Your task to perform on an android device: Open CNN.com Image 0: 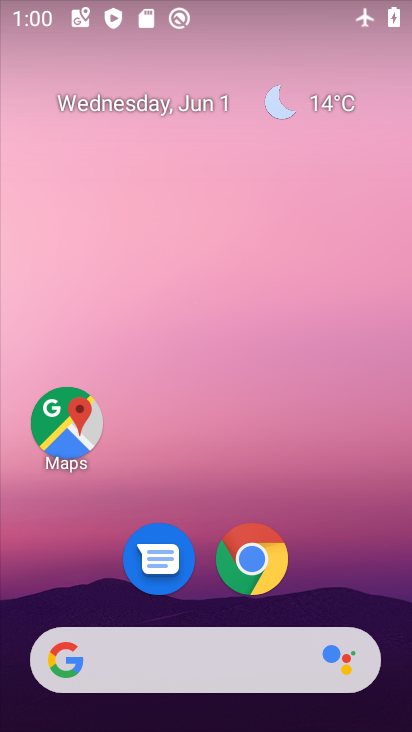
Step 0: click (55, 446)
Your task to perform on an android device: Open CNN.com Image 1: 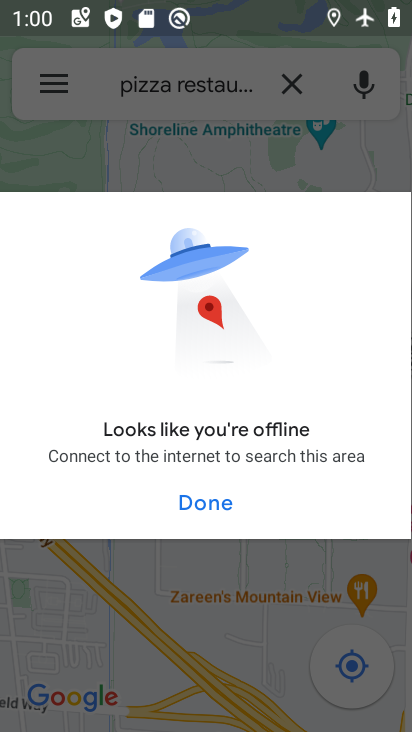
Step 1: press home button
Your task to perform on an android device: Open CNN.com Image 2: 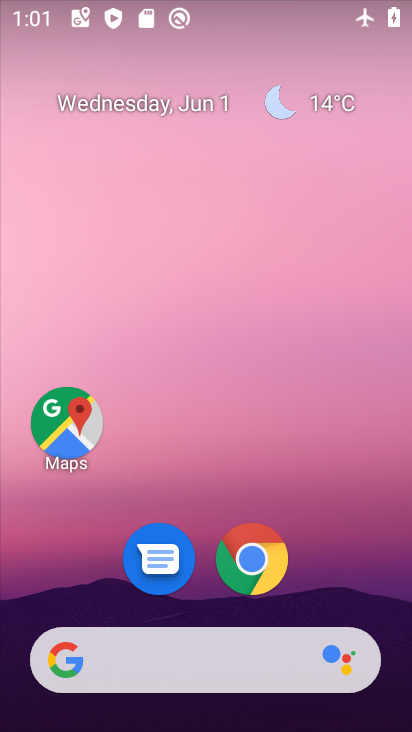
Step 2: click (229, 552)
Your task to perform on an android device: Open CNN.com Image 3: 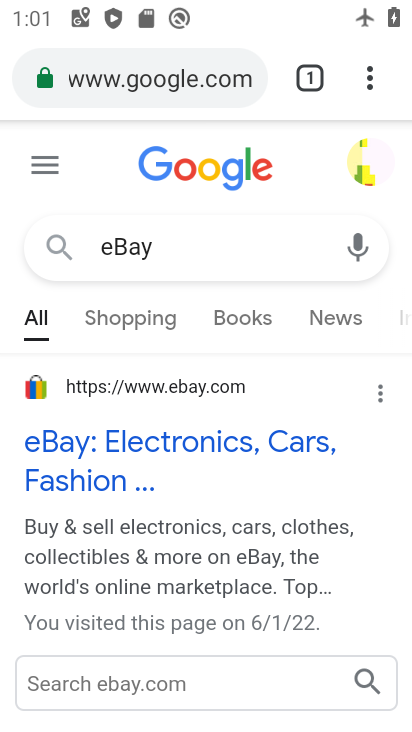
Step 3: click (251, 84)
Your task to perform on an android device: Open CNN.com Image 4: 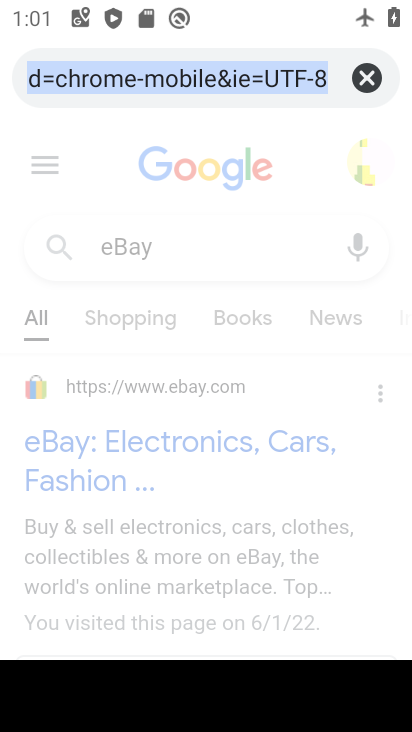
Step 4: click (366, 70)
Your task to perform on an android device: Open CNN.com Image 5: 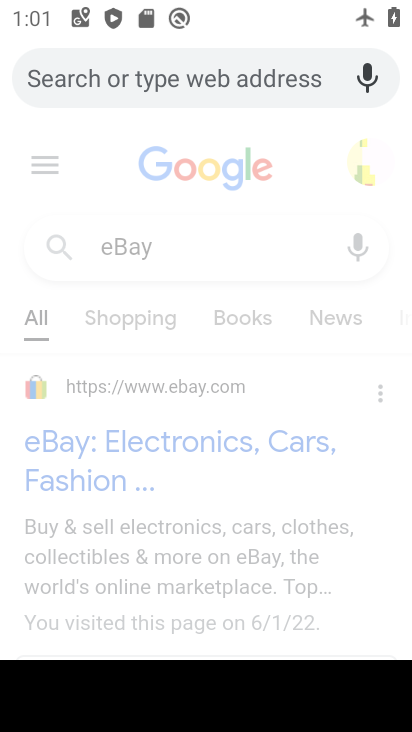
Step 5: type "CNN.com"
Your task to perform on an android device: Open CNN.com Image 6: 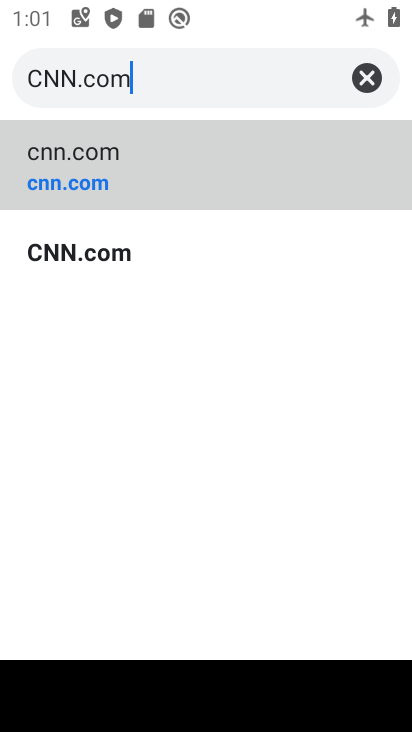
Step 6: click (96, 253)
Your task to perform on an android device: Open CNN.com Image 7: 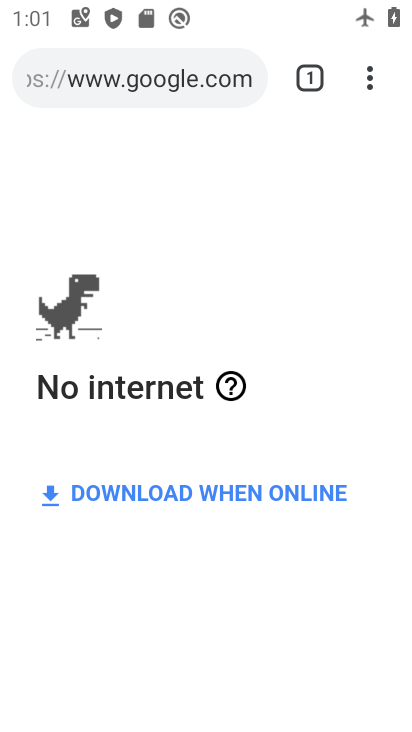
Step 7: task complete